Your task to perform on an android device: change notification settings in the gmail app Image 0: 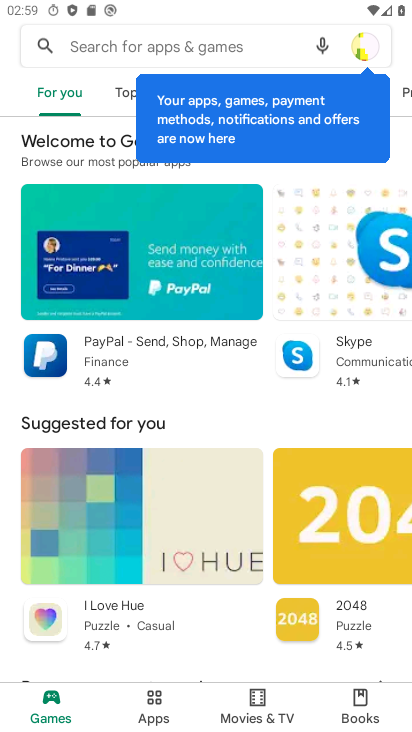
Step 0: press home button
Your task to perform on an android device: change notification settings in the gmail app Image 1: 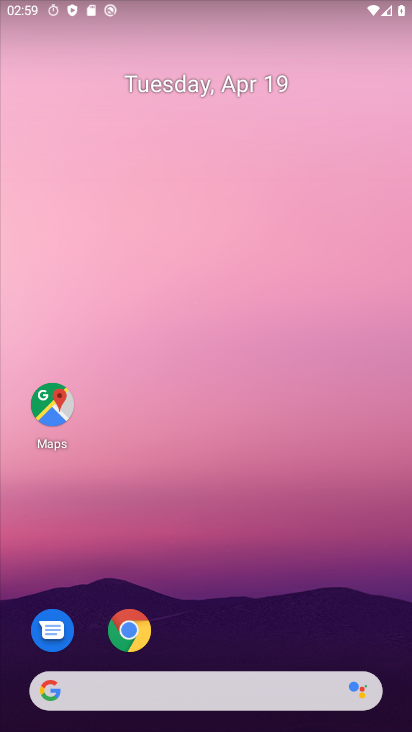
Step 1: drag from (263, 609) to (218, 67)
Your task to perform on an android device: change notification settings in the gmail app Image 2: 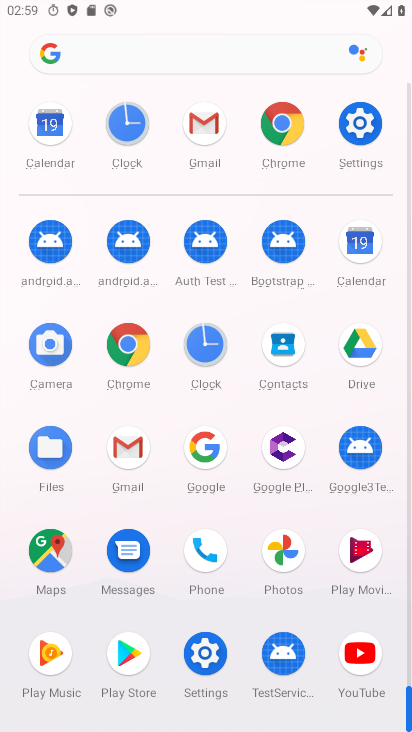
Step 2: click (206, 131)
Your task to perform on an android device: change notification settings in the gmail app Image 3: 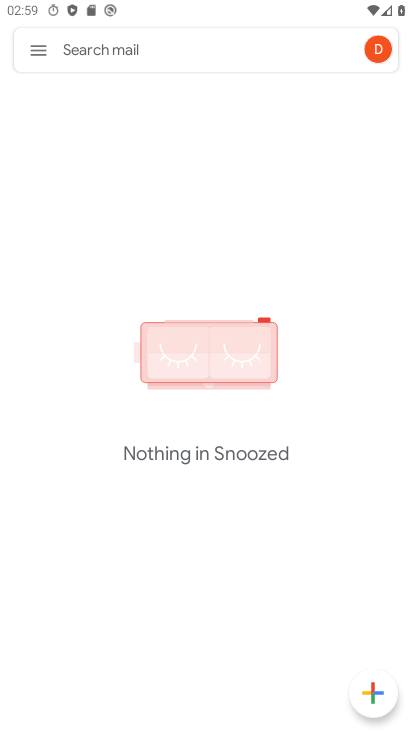
Step 3: click (38, 53)
Your task to perform on an android device: change notification settings in the gmail app Image 4: 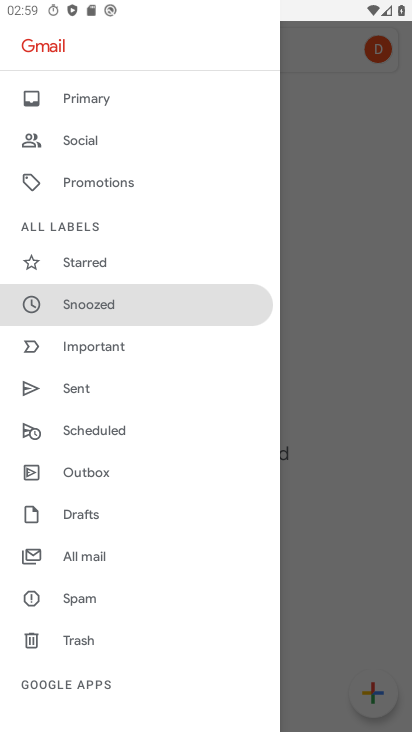
Step 4: drag from (121, 582) to (161, 244)
Your task to perform on an android device: change notification settings in the gmail app Image 5: 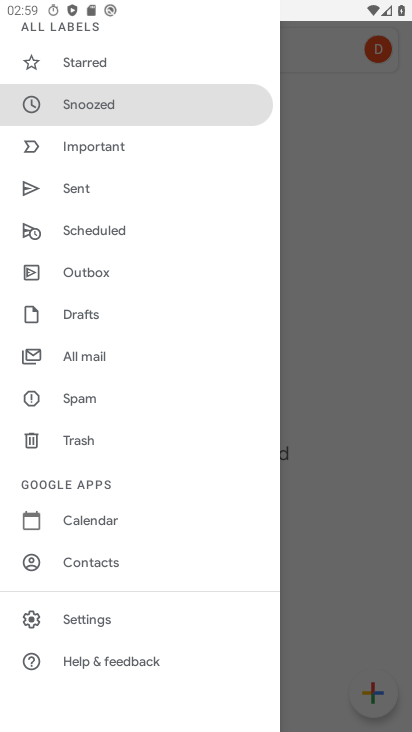
Step 5: click (93, 614)
Your task to perform on an android device: change notification settings in the gmail app Image 6: 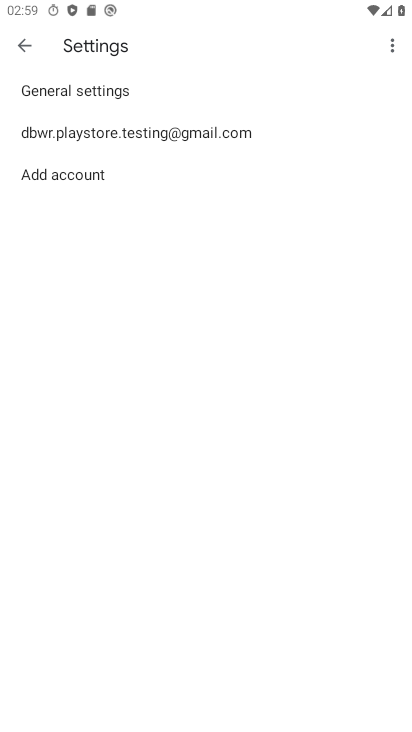
Step 6: click (124, 92)
Your task to perform on an android device: change notification settings in the gmail app Image 7: 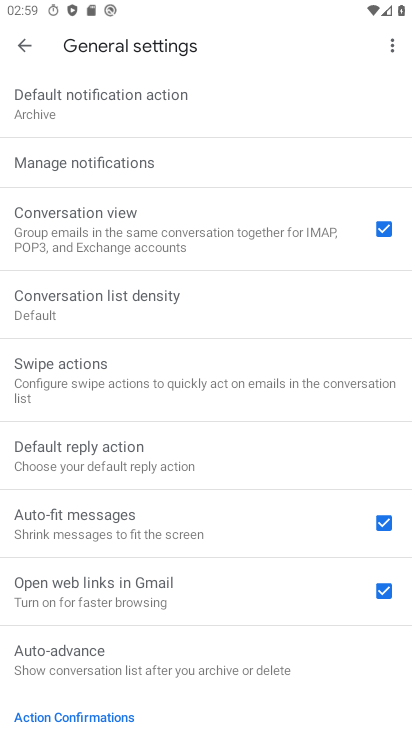
Step 7: click (123, 163)
Your task to perform on an android device: change notification settings in the gmail app Image 8: 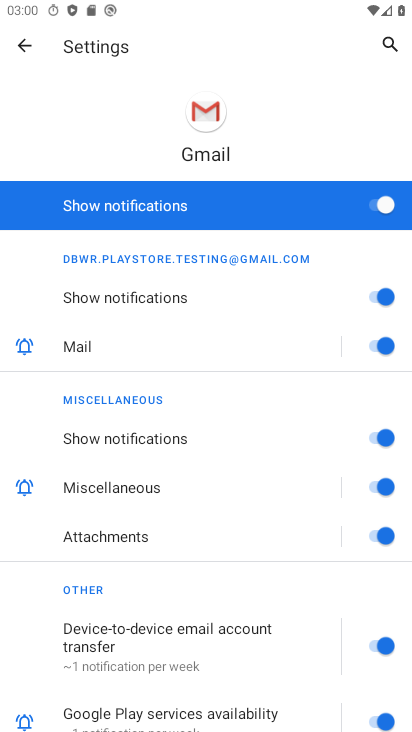
Step 8: click (378, 437)
Your task to perform on an android device: change notification settings in the gmail app Image 9: 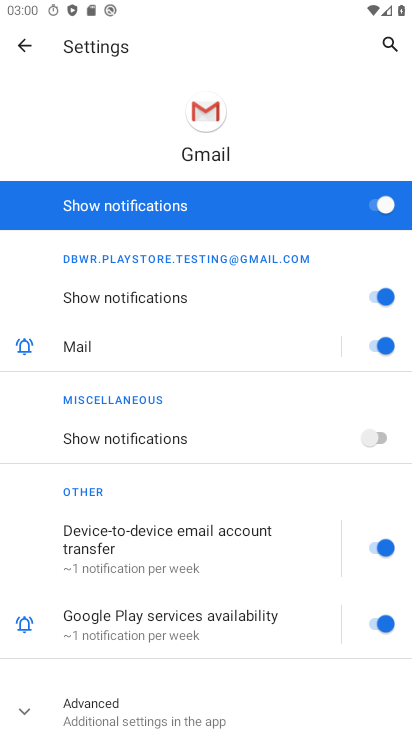
Step 9: task complete